Your task to perform on an android device: turn vacation reply on in the gmail app Image 0: 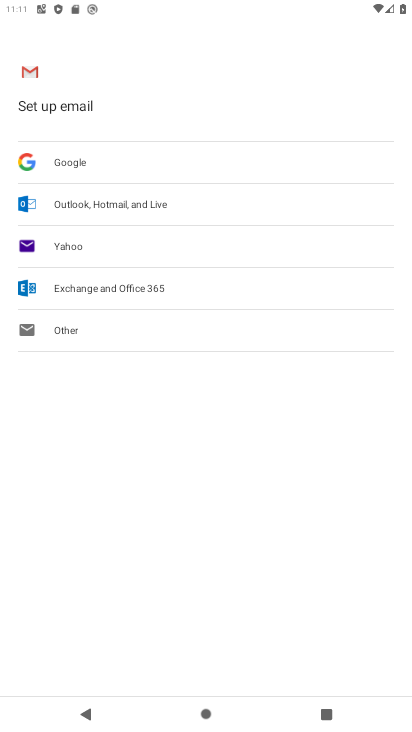
Step 0: click (206, 717)
Your task to perform on an android device: turn vacation reply on in the gmail app Image 1: 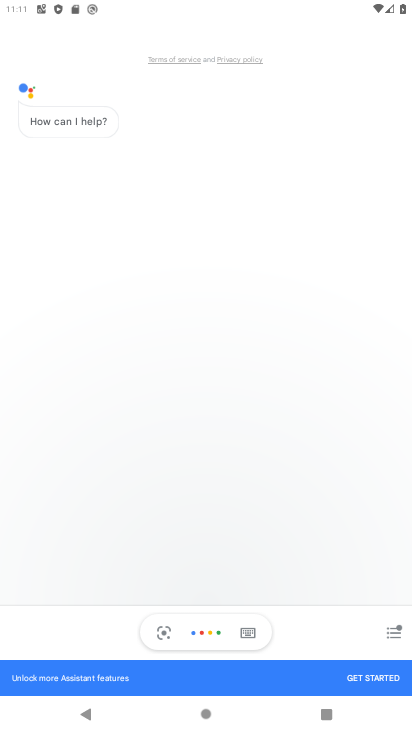
Step 1: press home button
Your task to perform on an android device: turn vacation reply on in the gmail app Image 2: 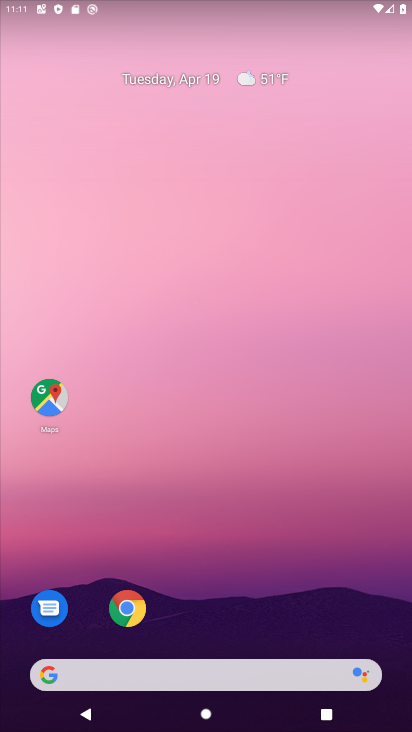
Step 2: drag from (85, 634) to (128, 110)
Your task to perform on an android device: turn vacation reply on in the gmail app Image 3: 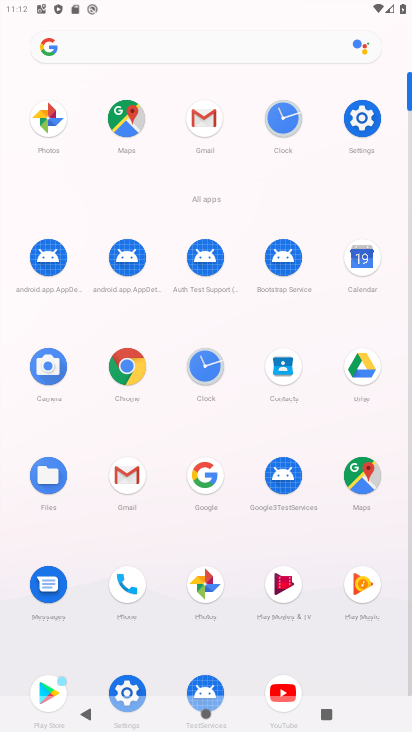
Step 3: click (197, 123)
Your task to perform on an android device: turn vacation reply on in the gmail app Image 4: 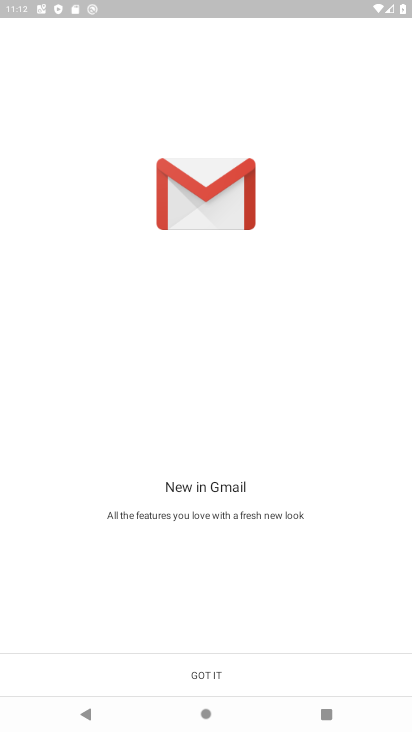
Step 4: click (208, 673)
Your task to perform on an android device: turn vacation reply on in the gmail app Image 5: 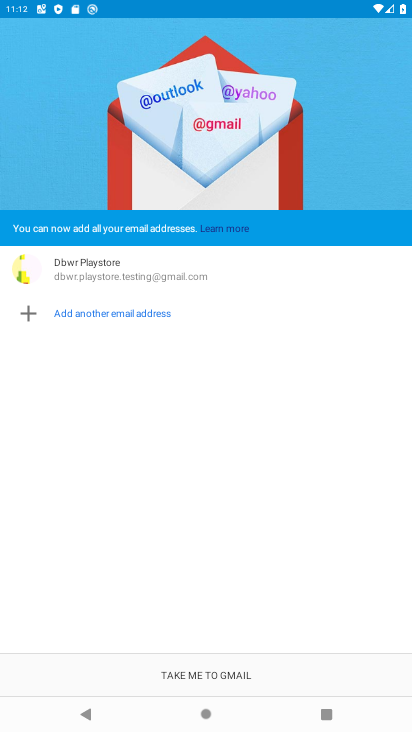
Step 5: click (217, 665)
Your task to perform on an android device: turn vacation reply on in the gmail app Image 6: 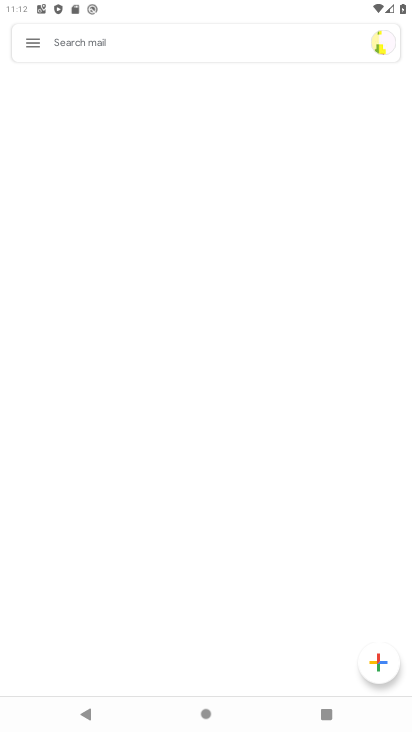
Step 6: click (27, 43)
Your task to perform on an android device: turn vacation reply on in the gmail app Image 7: 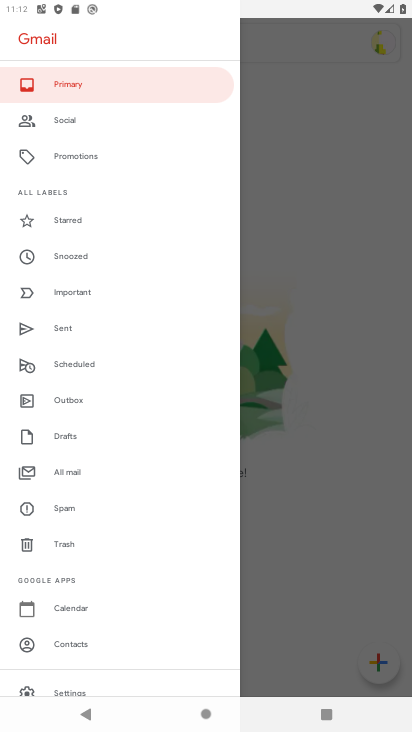
Step 7: drag from (80, 627) to (103, 423)
Your task to perform on an android device: turn vacation reply on in the gmail app Image 8: 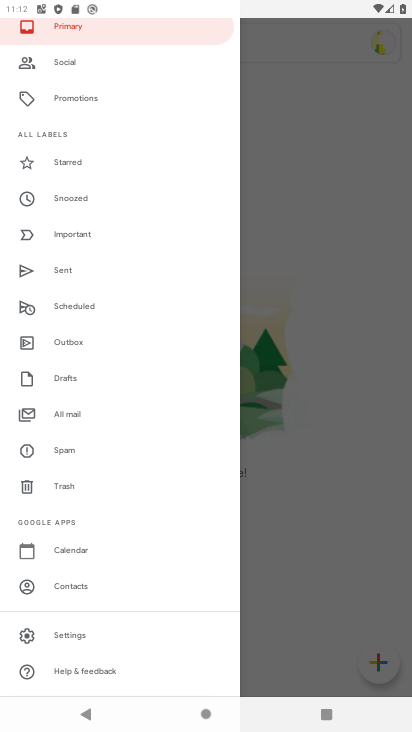
Step 8: click (76, 629)
Your task to perform on an android device: turn vacation reply on in the gmail app Image 9: 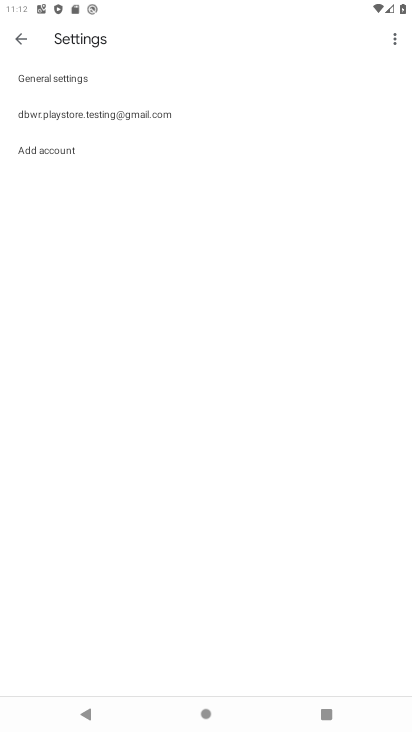
Step 9: click (105, 112)
Your task to perform on an android device: turn vacation reply on in the gmail app Image 10: 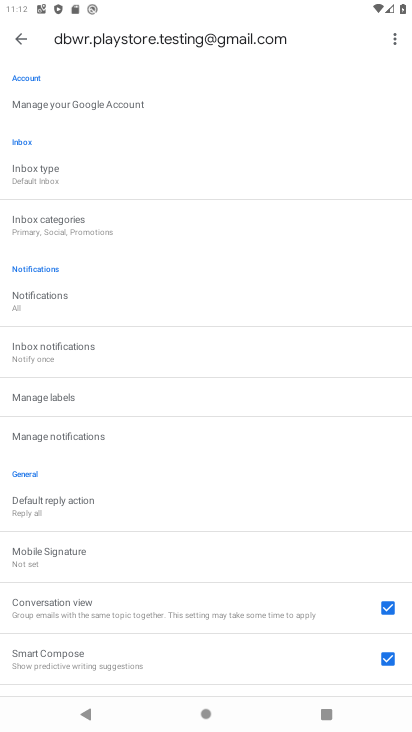
Step 10: drag from (77, 620) to (98, 363)
Your task to perform on an android device: turn vacation reply on in the gmail app Image 11: 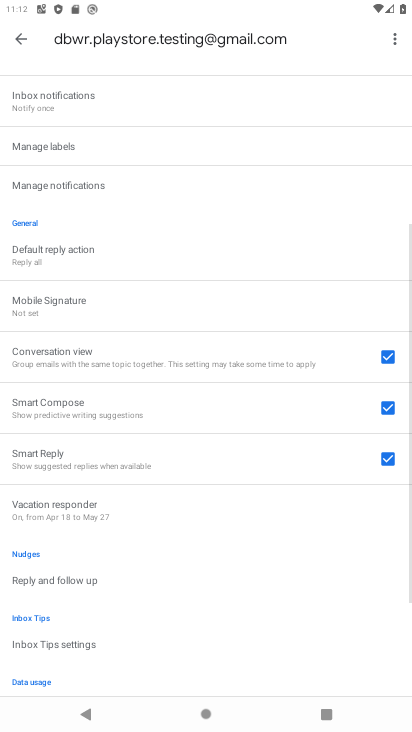
Step 11: click (98, 514)
Your task to perform on an android device: turn vacation reply on in the gmail app Image 12: 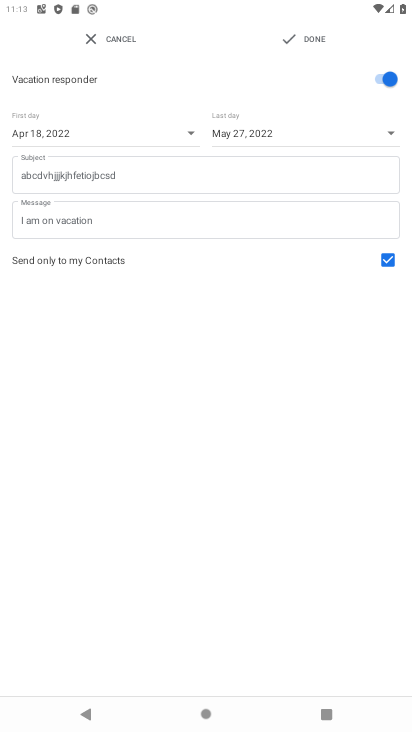
Step 12: task complete